Your task to perform on an android device: empty trash in google photos Image 0: 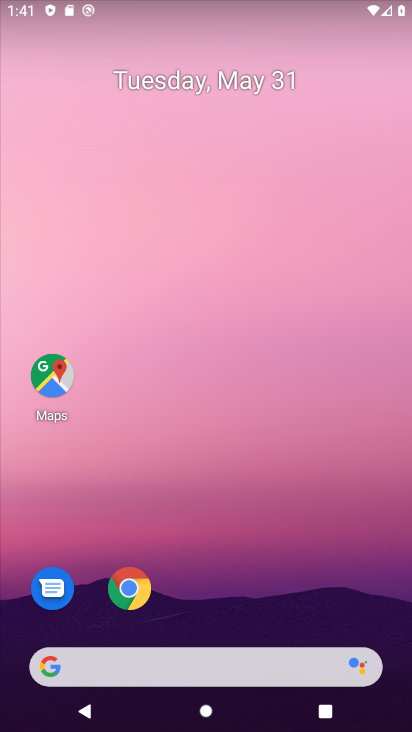
Step 0: drag from (149, 731) to (296, 39)
Your task to perform on an android device: empty trash in google photos Image 1: 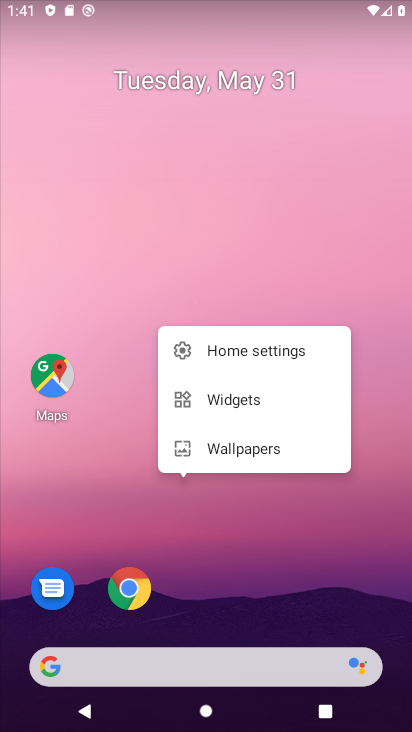
Step 1: press home button
Your task to perform on an android device: empty trash in google photos Image 2: 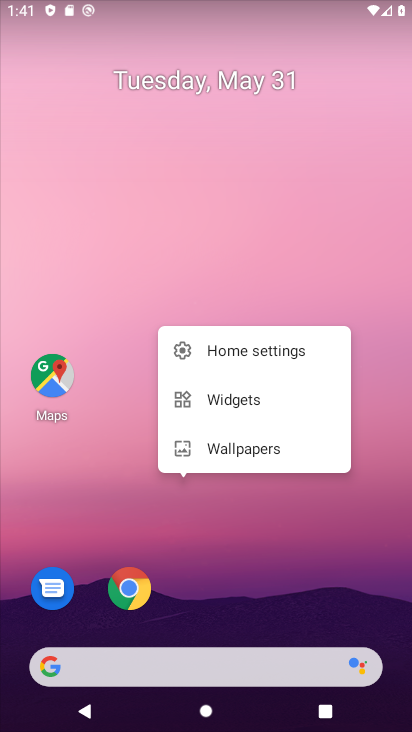
Step 2: drag from (159, 729) to (138, 84)
Your task to perform on an android device: empty trash in google photos Image 3: 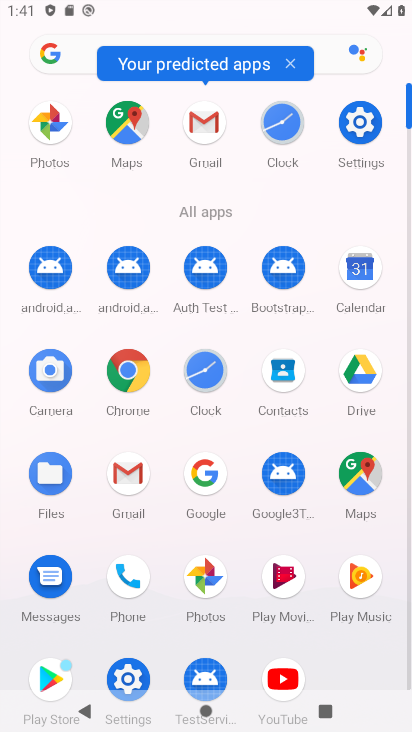
Step 3: click (198, 588)
Your task to perform on an android device: empty trash in google photos Image 4: 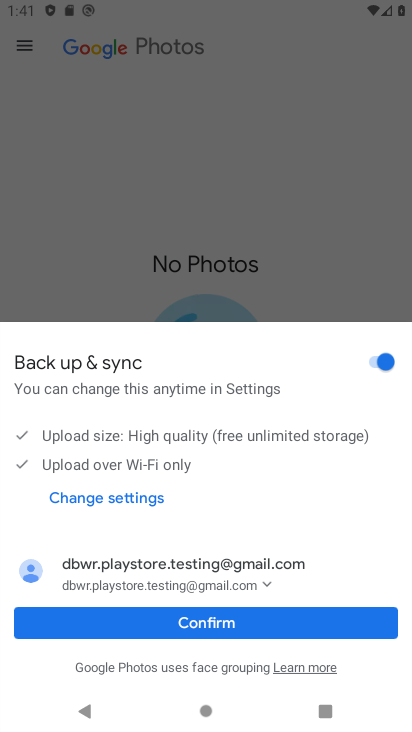
Step 4: click (206, 629)
Your task to perform on an android device: empty trash in google photos Image 5: 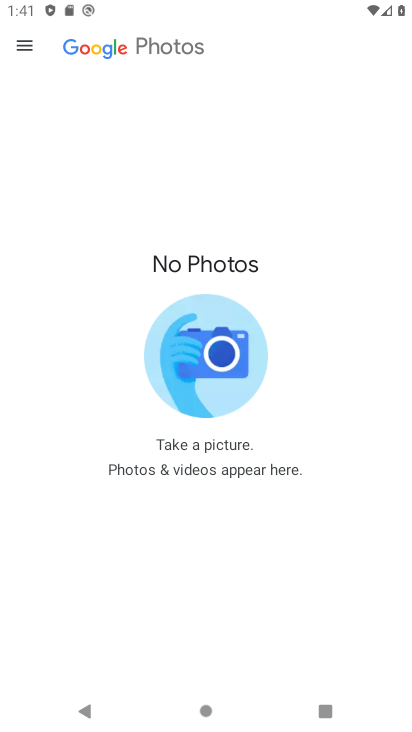
Step 5: click (25, 43)
Your task to perform on an android device: empty trash in google photos Image 6: 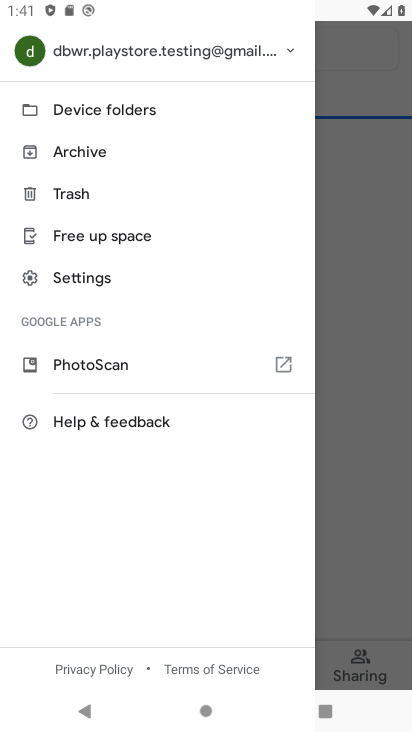
Step 6: click (75, 198)
Your task to perform on an android device: empty trash in google photos Image 7: 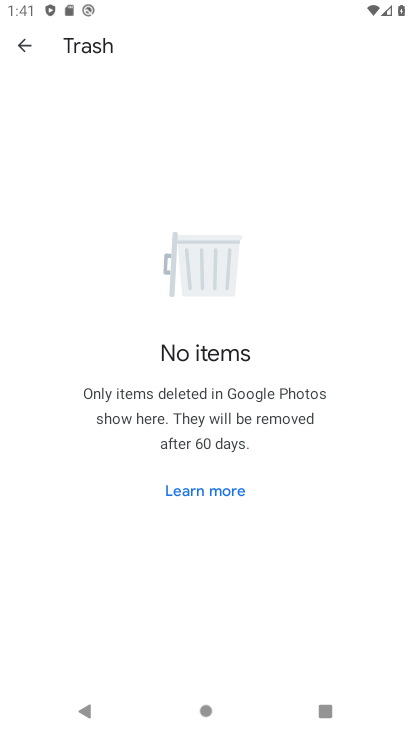
Step 7: task complete